Your task to perform on an android device: open a bookmark in the chrome app Image 0: 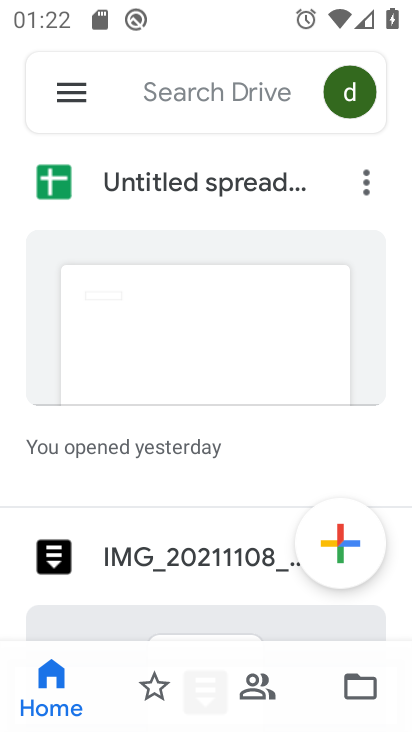
Step 0: press home button
Your task to perform on an android device: open a bookmark in the chrome app Image 1: 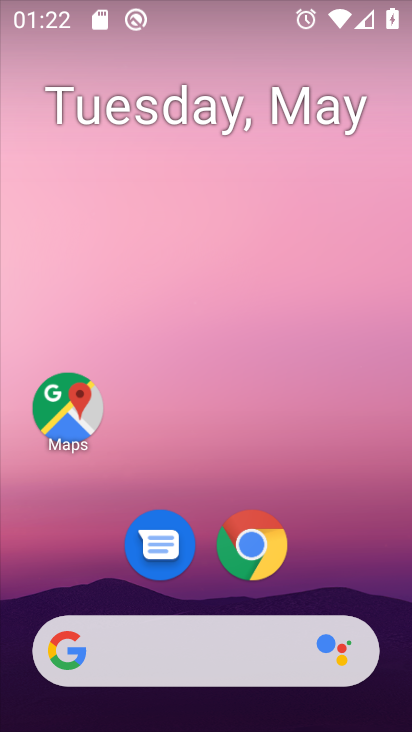
Step 1: click (245, 532)
Your task to perform on an android device: open a bookmark in the chrome app Image 2: 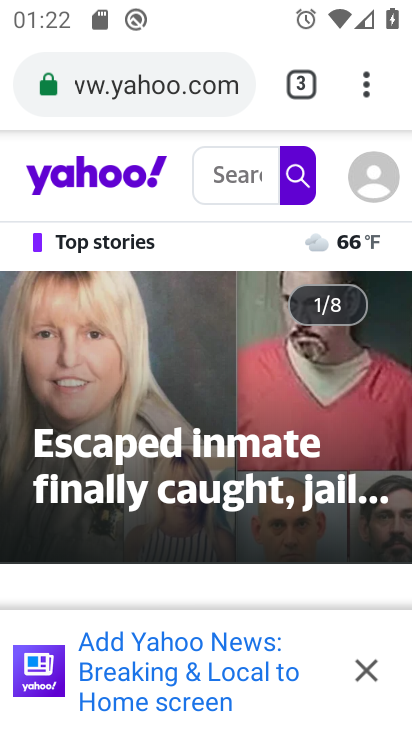
Step 2: click (366, 106)
Your task to perform on an android device: open a bookmark in the chrome app Image 3: 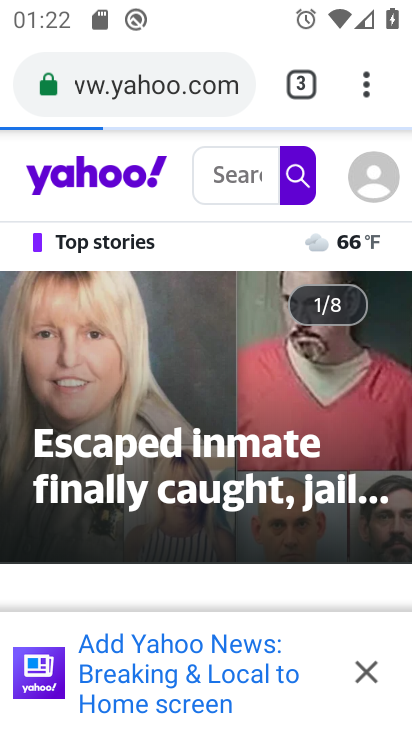
Step 3: click (369, 114)
Your task to perform on an android device: open a bookmark in the chrome app Image 4: 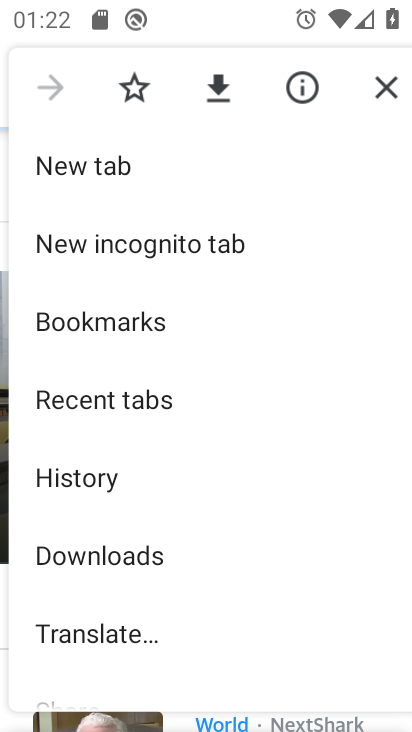
Step 4: click (126, 334)
Your task to perform on an android device: open a bookmark in the chrome app Image 5: 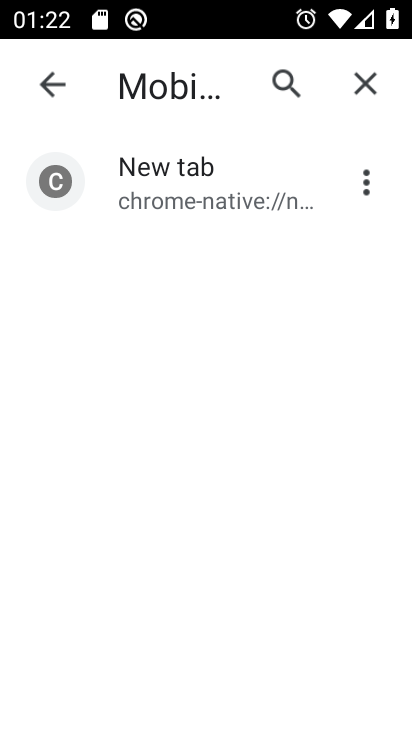
Step 5: click (206, 195)
Your task to perform on an android device: open a bookmark in the chrome app Image 6: 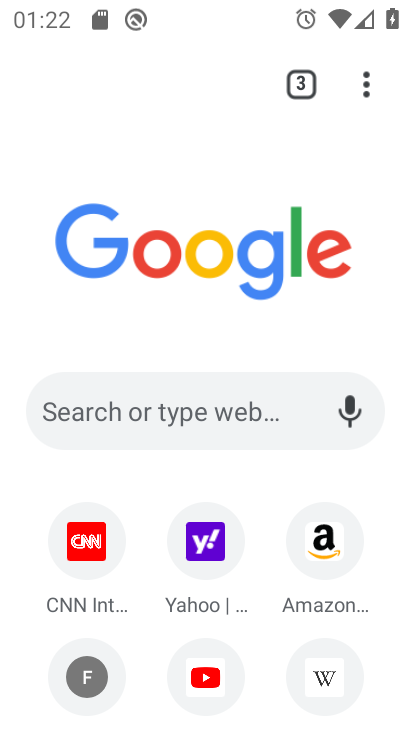
Step 6: task complete